Your task to perform on an android device: Open the map Image 0: 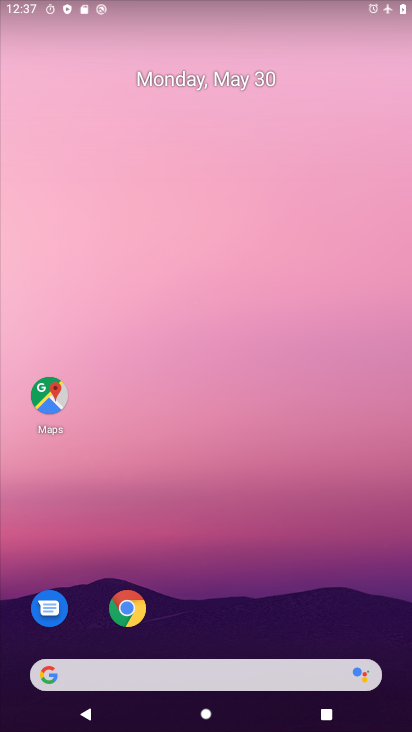
Step 0: click (29, 397)
Your task to perform on an android device: Open the map Image 1: 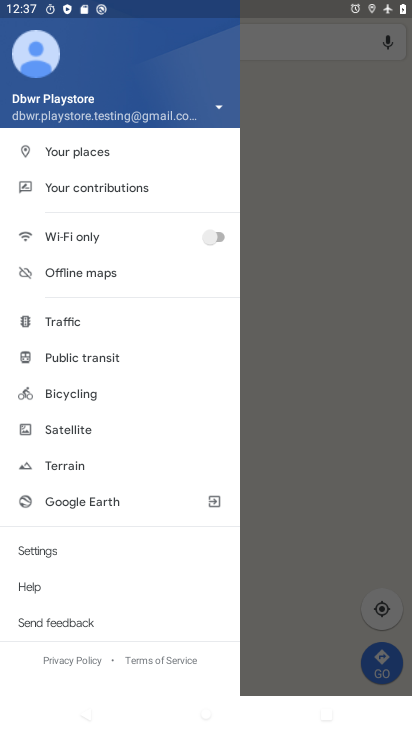
Step 1: click (329, 302)
Your task to perform on an android device: Open the map Image 2: 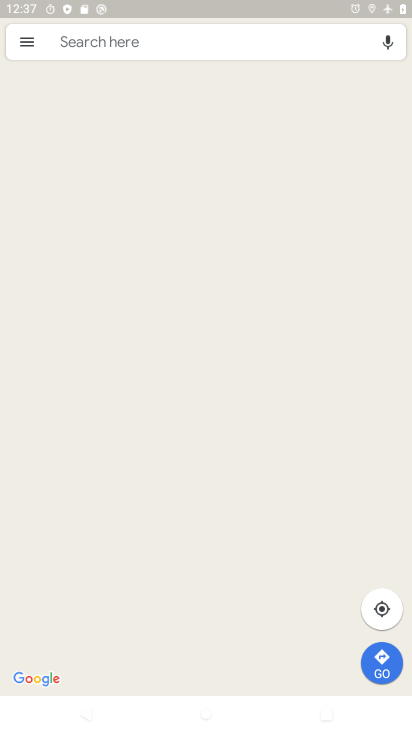
Step 2: task complete